Your task to perform on an android device: see tabs open on other devices in the chrome app Image 0: 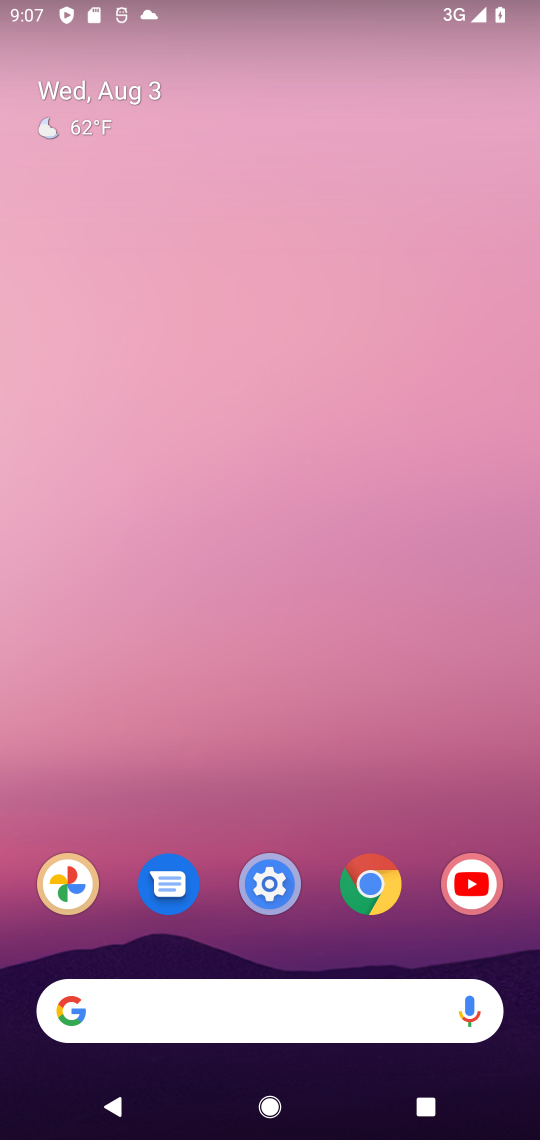
Step 0: drag from (241, 980) to (319, 335)
Your task to perform on an android device: see tabs open on other devices in the chrome app Image 1: 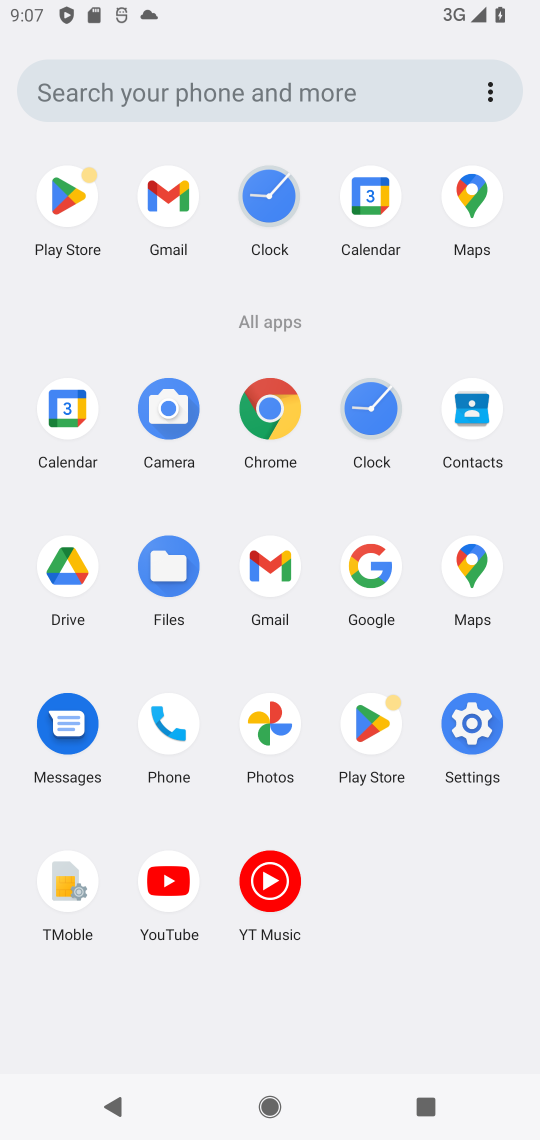
Step 1: click (276, 411)
Your task to perform on an android device: see tabs open on other devices in the chrome app Image 2: 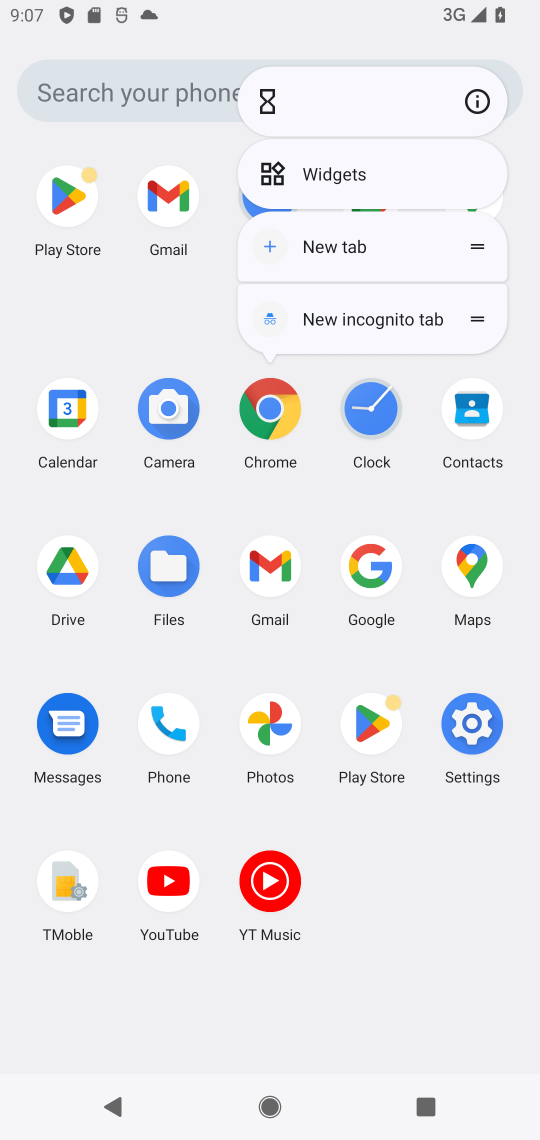
Step 2: click (490, 117)
Your task to perform on an android device: see tabs open on other devices in the chrome app Image 3: 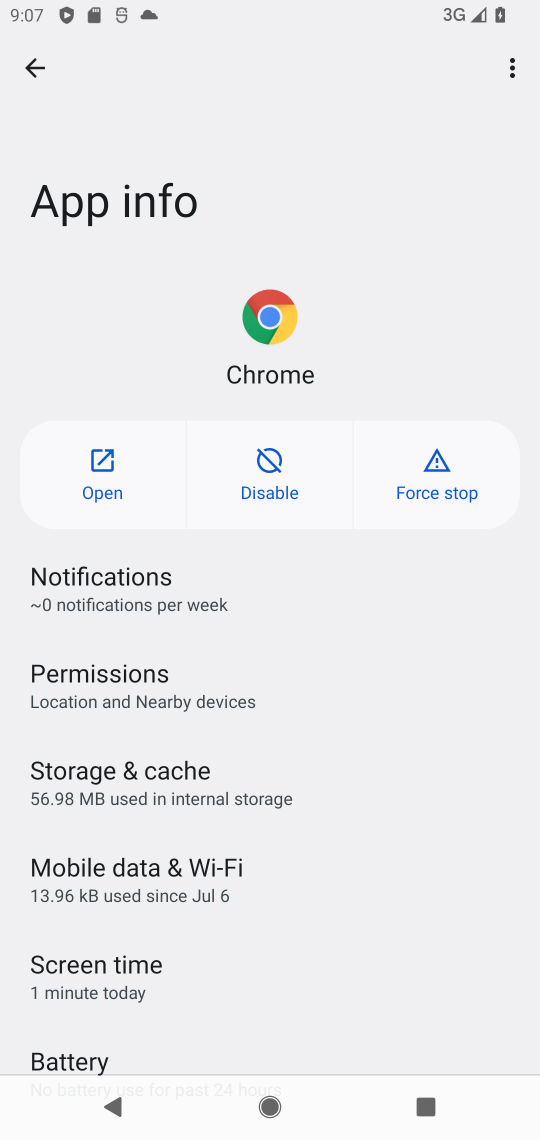
Step 3: click (110, 451)
Your task to perform on an android device: see tabs open on other devices in the chrome app Image 4: 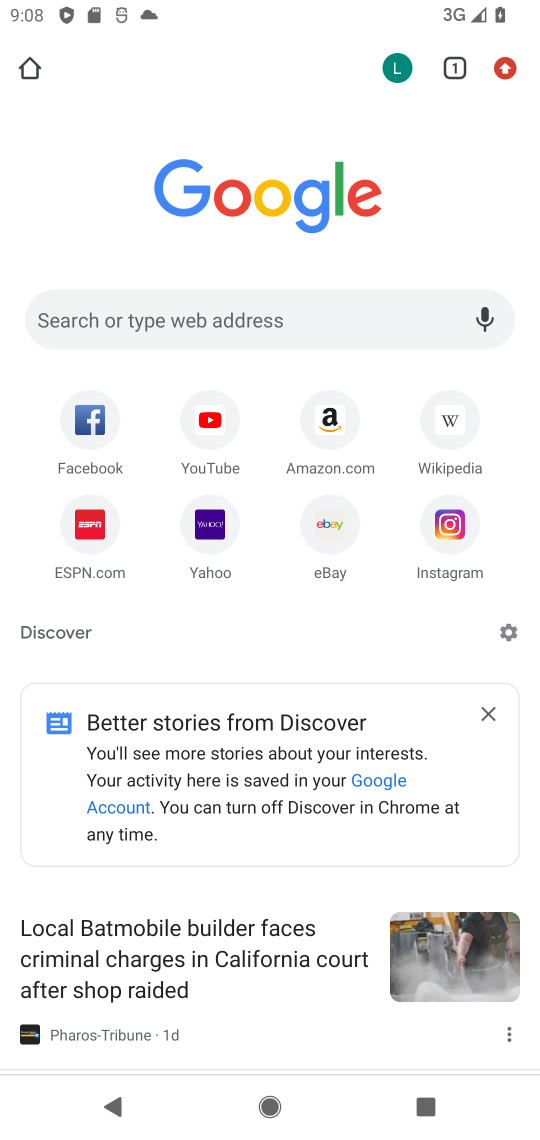
Step 4: task complete